Your task to perform on an android device: Go to sound settings Image 0: 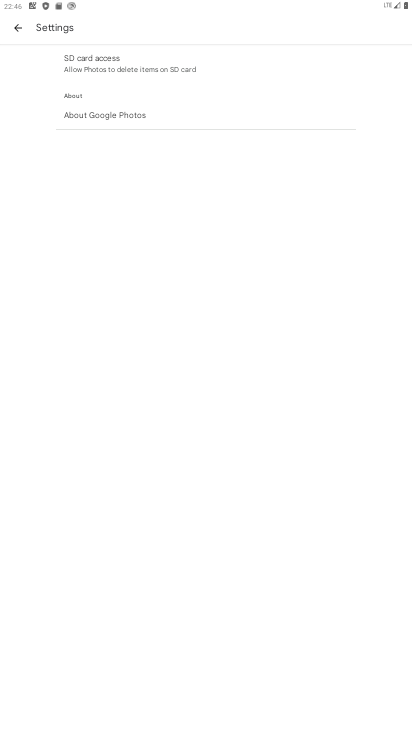
Step 0: click (362, 375)
Your task to perform on an android device: Go to sound settings Image 1: 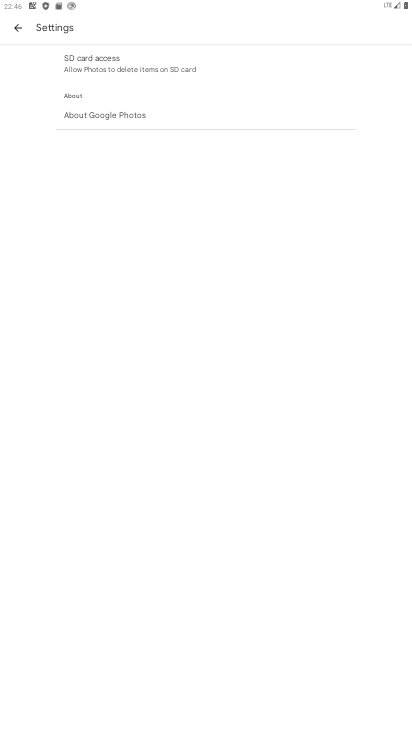
Step 1: press home button
Your task to perform on an android device: Go to sound settings Image 2: 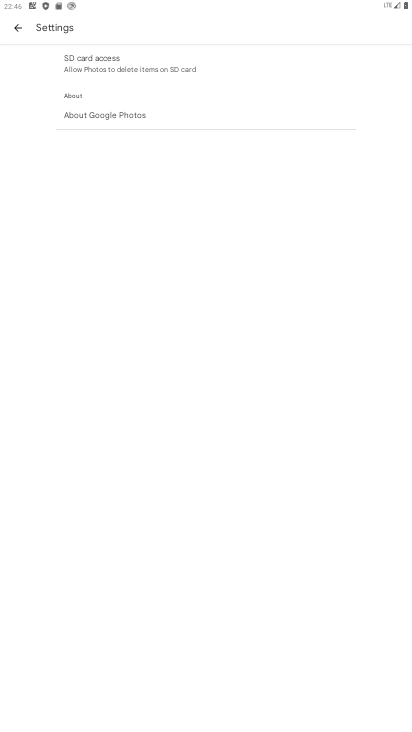
Step 2: press home button
Your task to perform on an android device: Go to sound settings Image 3: 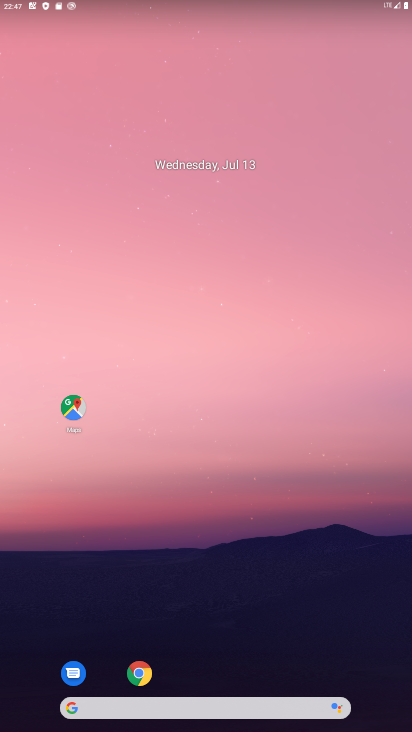
Step 3: drag from (191, 673) to (287, 249)
Your task to perform on an android device: Go to sound settings Image 4: 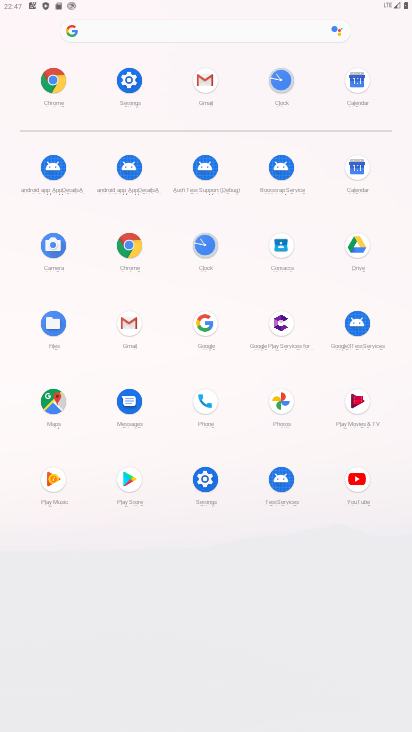
Step 4: click (128, 78)
Your task to perform on an android device: Go to sound settings Image 5: 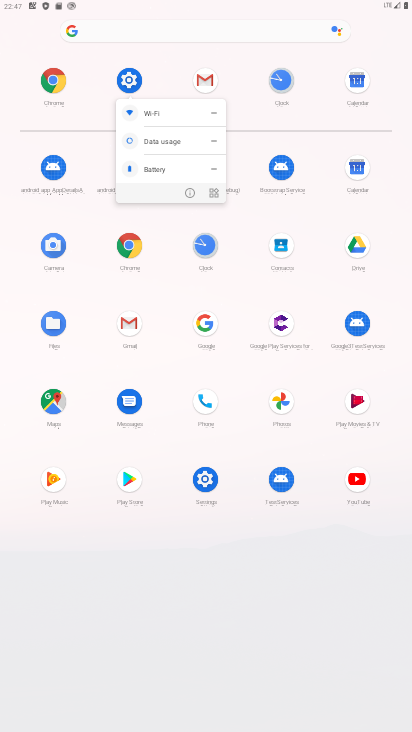
Step 5: click (193, 190)
Your task to perform on an android device: Go to sound settings Image 6: 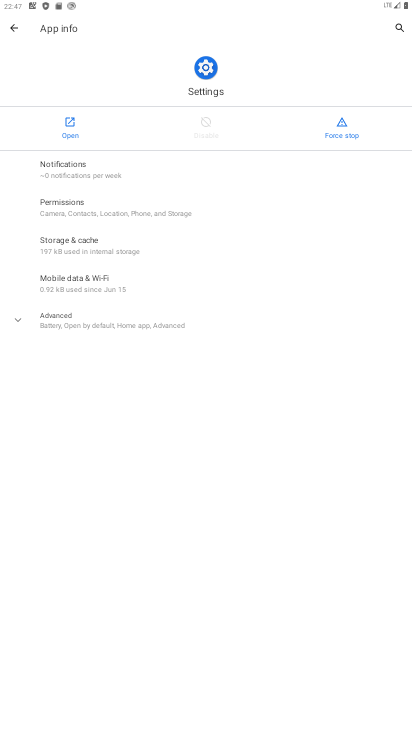
Step 6: click (71, 126)
Your task to perform on an android device: Go to sound settings Image 7: 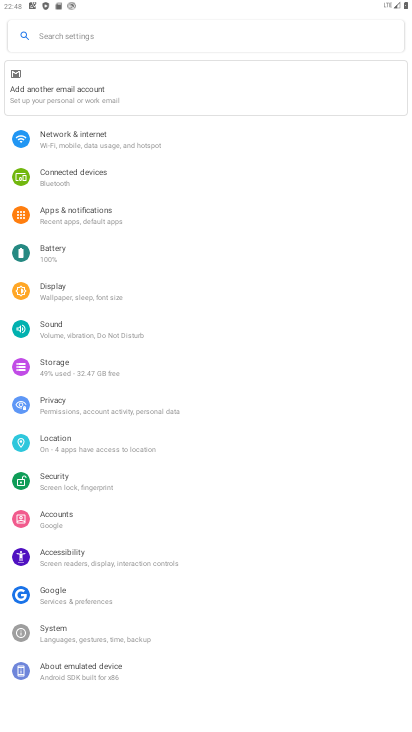
Step 7: click (55, 322)
Your task to perform on an android device: Go to sound settings Image 8: 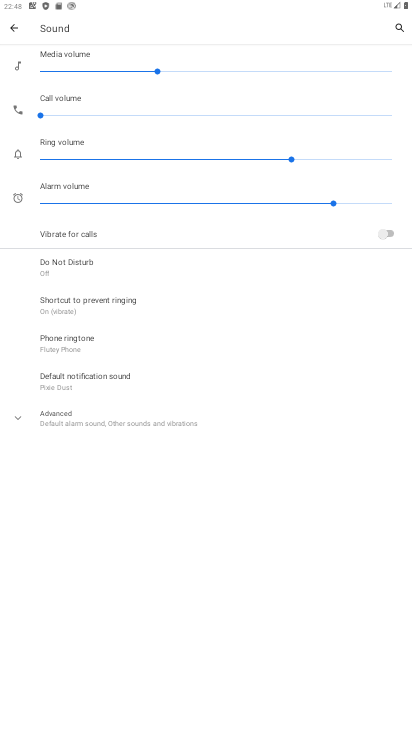
Step 8: task complete